Your task to perform on an android device: choose inbox layout in the gmail app Image 0: 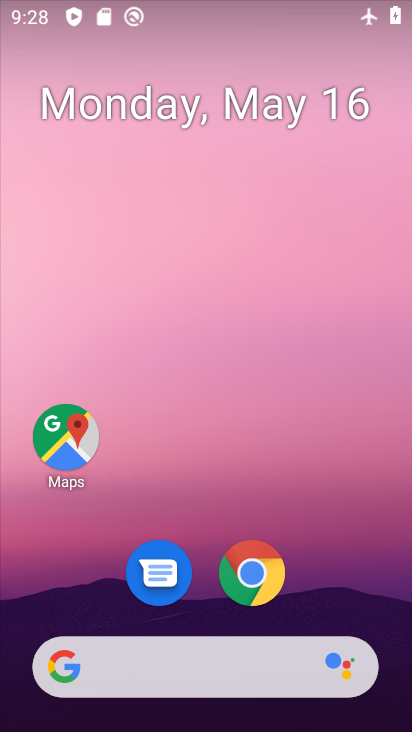
Step 0: drag from (329, 513) to (197, 48)
Your task to perform on an android device: choose inbox layout in the gmail app Image 1: 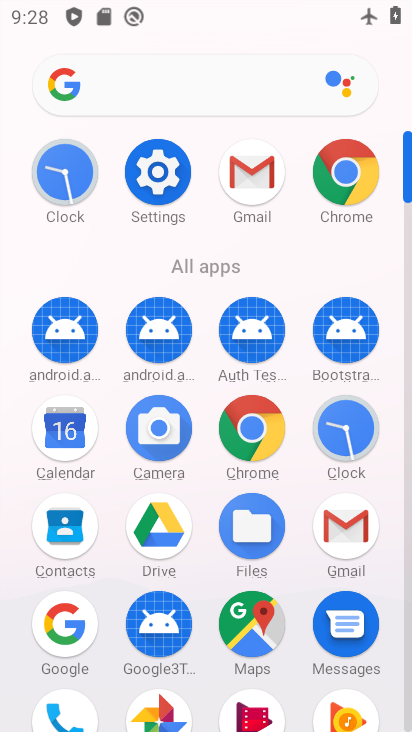
Step 1: click (245, 183)
Your task to perform on an android device: choose inbox layout in the gmail app Image 2: 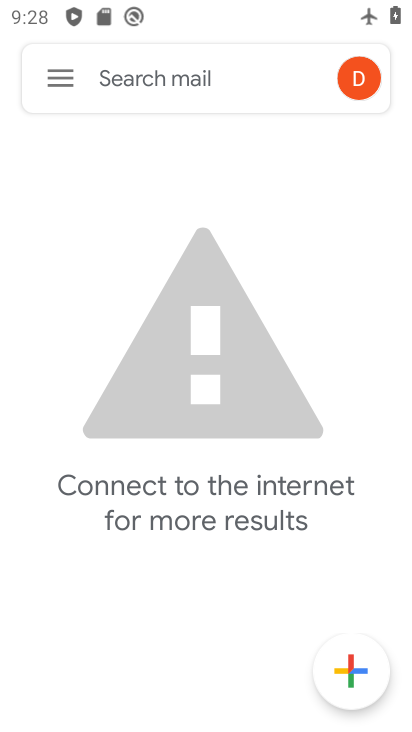
Step 2: click (56, 85)
Your task to perform on an android device: choose inbox layout in the gmail app Image 3: 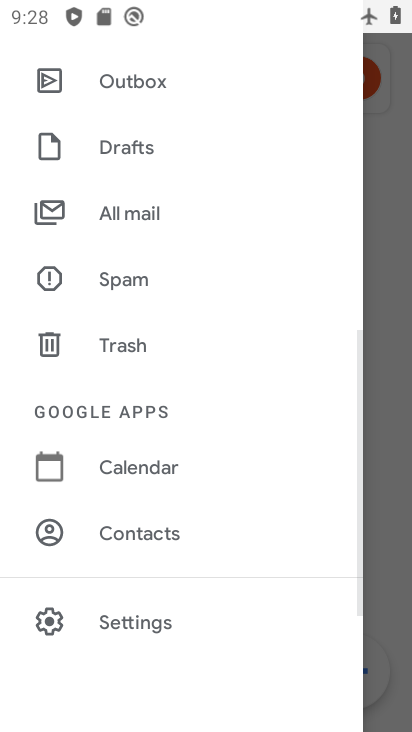
Step 3: click (141, 615)
Your task to perform on an android device: choose inbox layout in the gmail app Image 4: 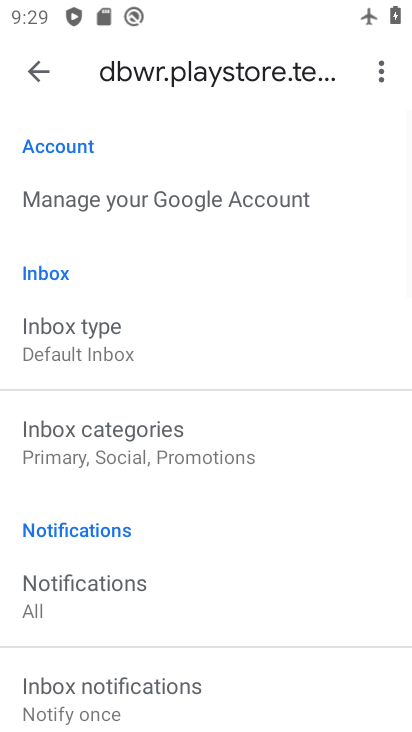
Step 4: click (74, 321)
Your task to perform on an android device: choose inbox layout in the gmail app Image 5: 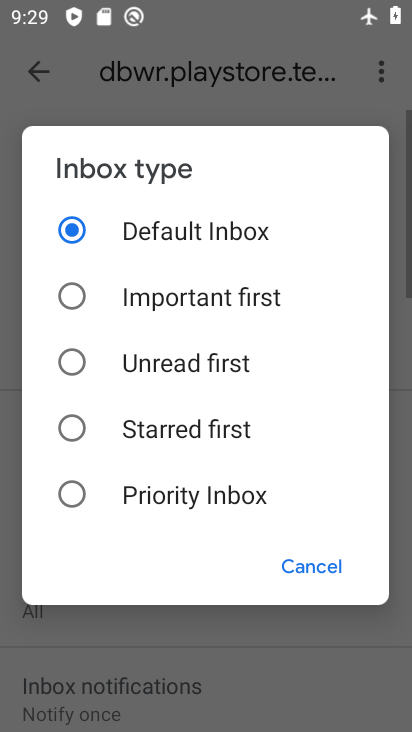
Step 5: click (136, 296)
Your task to perform on an android device: choose inbox layout in the gmail app Image 6: 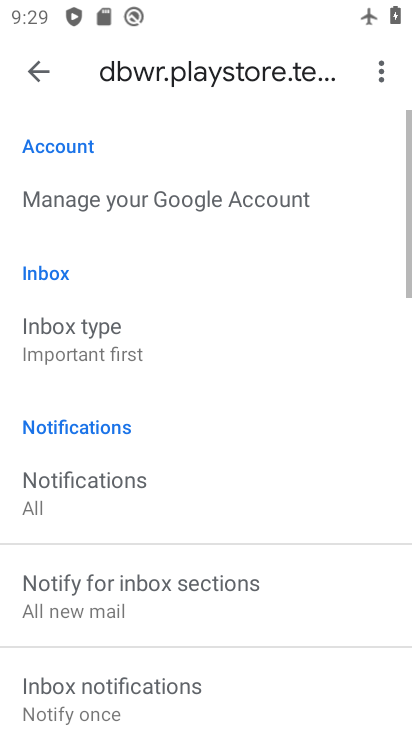
Step 6: task complete